Your task to perform on an android device: What's a good restaurant in Denver? Image 0: 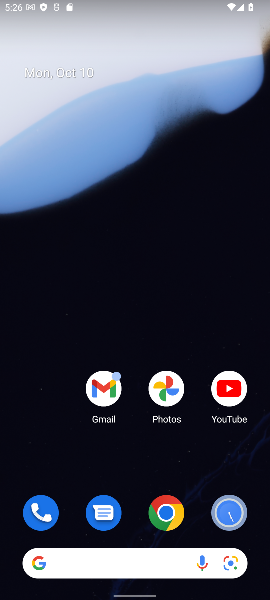
Step 0: click (146, 566)
Your task to perform on an android device: What's a good restaurant in Denver? Image 1: 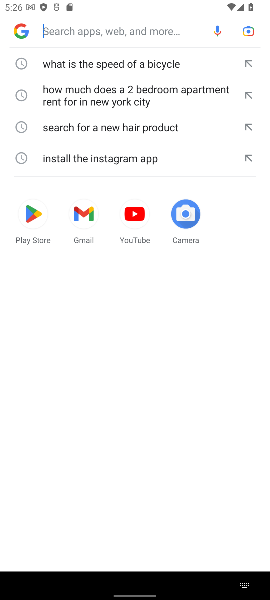
Step 1: type "What's a good restaurant in Denver?"
Your task to perform on an android device: What's a good restaurant in Denver? Image 2: 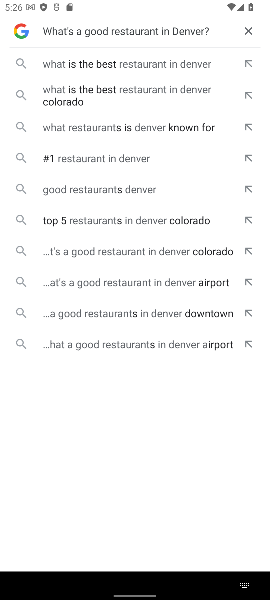
Step 2: click (164, 67)
Your task to perform on an android device: What's a good restaurant in Denver? Image 3: 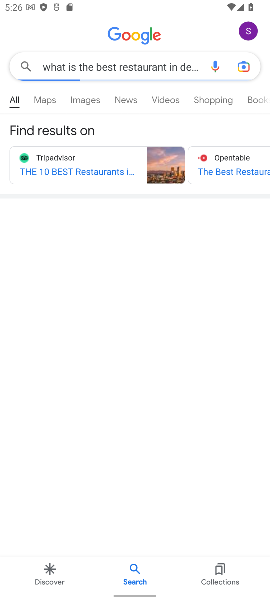
Step 3: task complete